Your task to perform on an android device: Open the stopwatch Image 0: 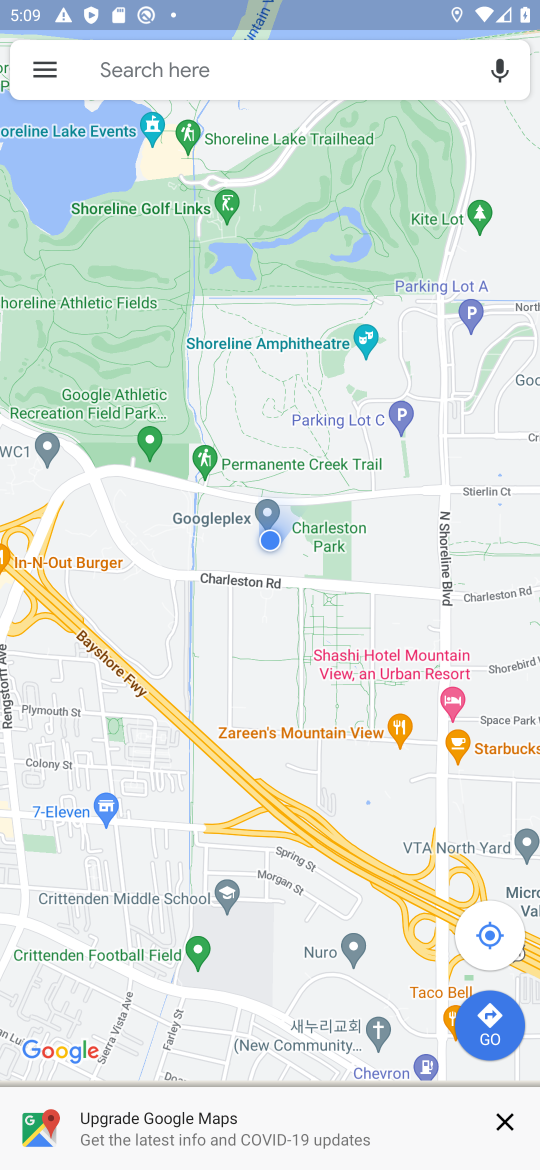
Step 0: press back button
Your task to perform on an android device: Open the stopwatch Image 1: 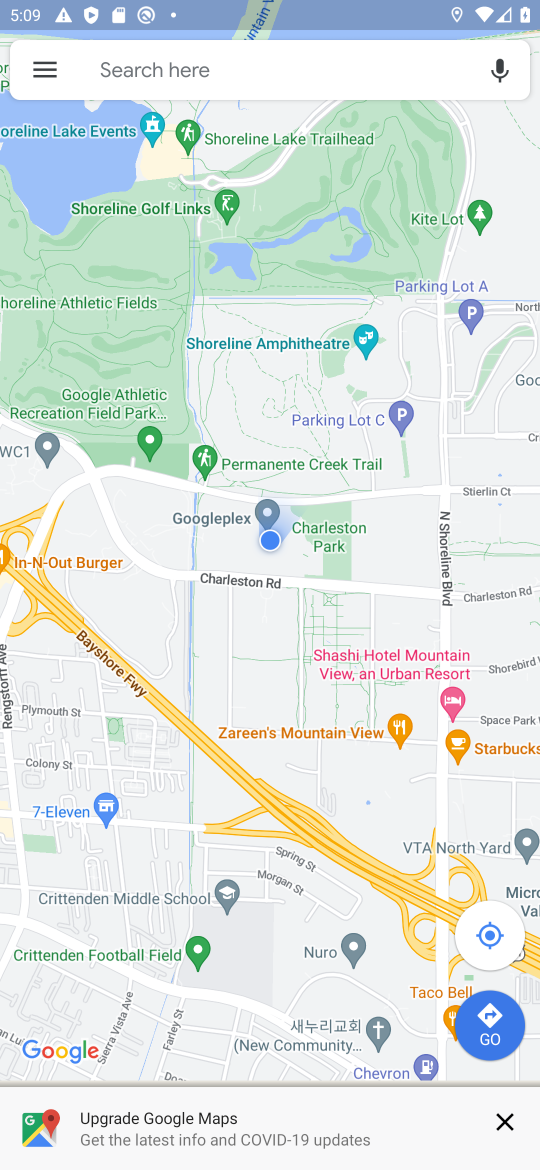
Step 1: press home button
Your task to perform on an android device: Open the stopwatch Image 2: 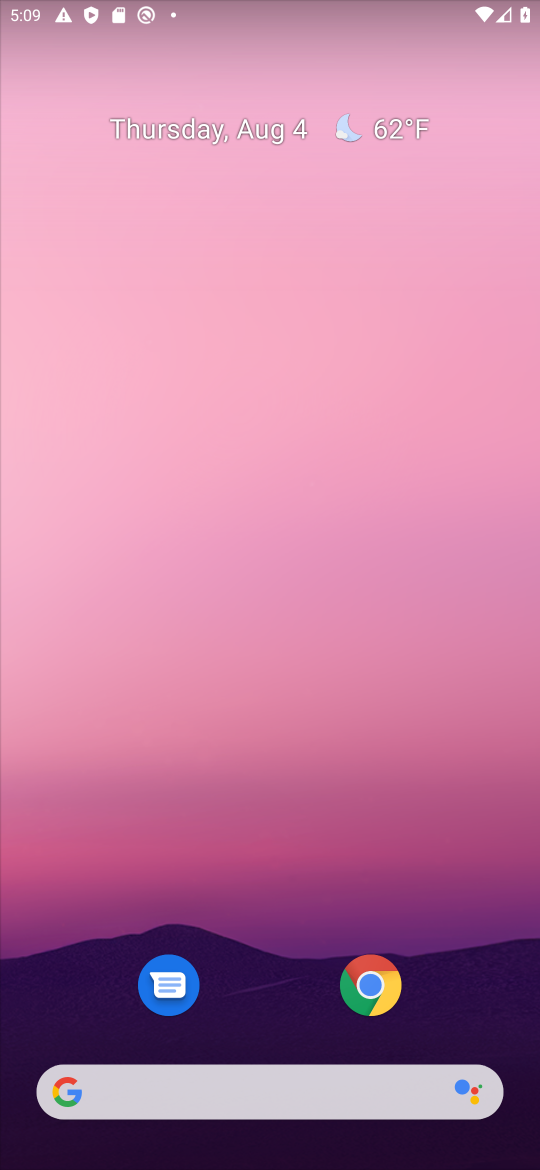
Step 2: drag from (241, 1099) to (281, 135)
Your task to perform on an android device: Open the stopwatch Image 3: 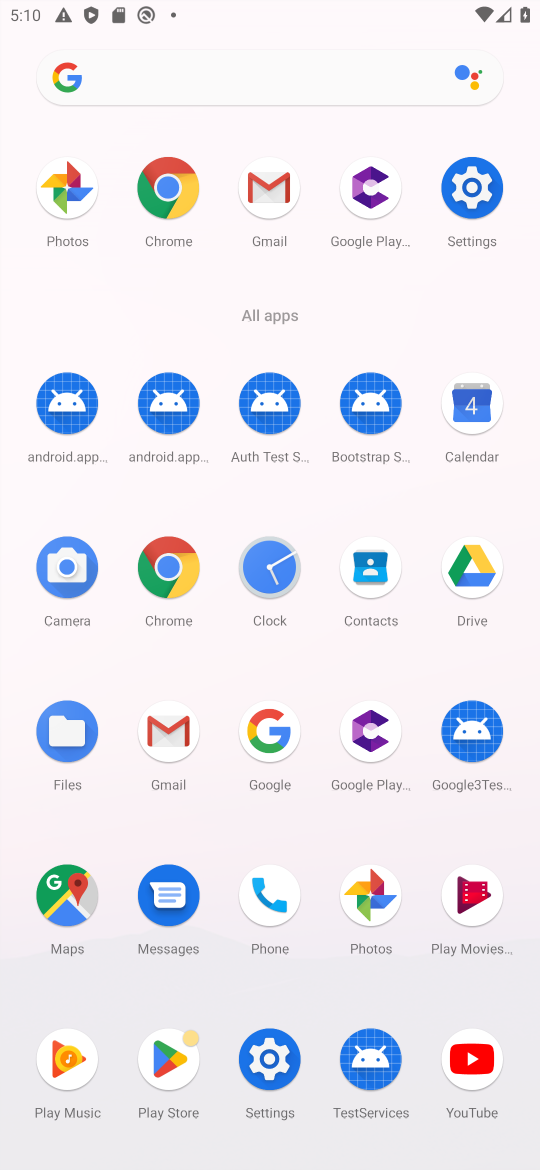
Step 3: click (278, 577)
Your task to perform on an android device: Open the stopwatch Image 4: 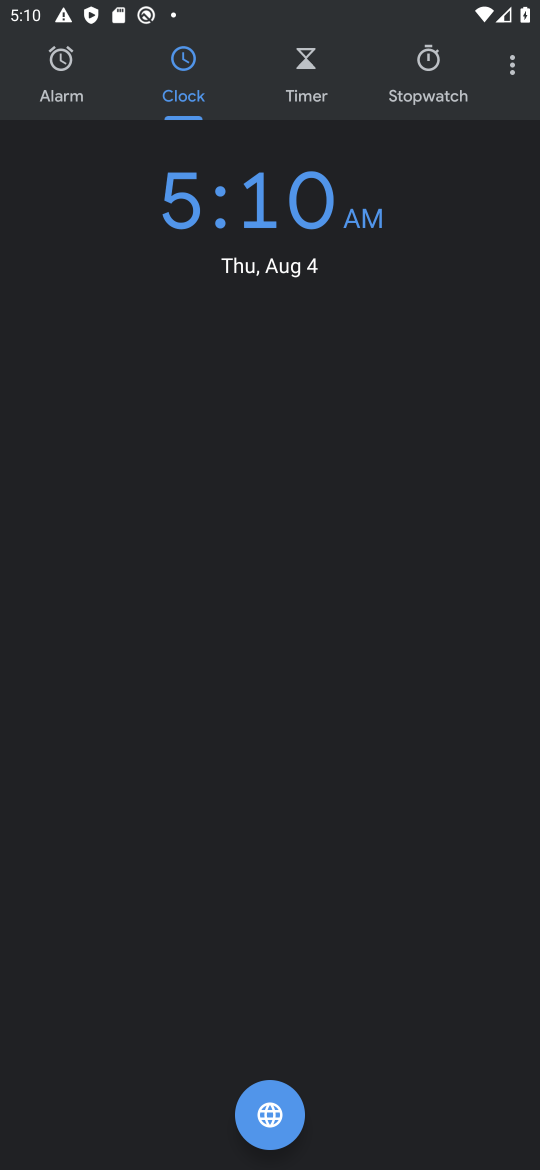
Step 4: click (410, 111)
Your task to perform on an android device: Open the stopwatch Image 5: 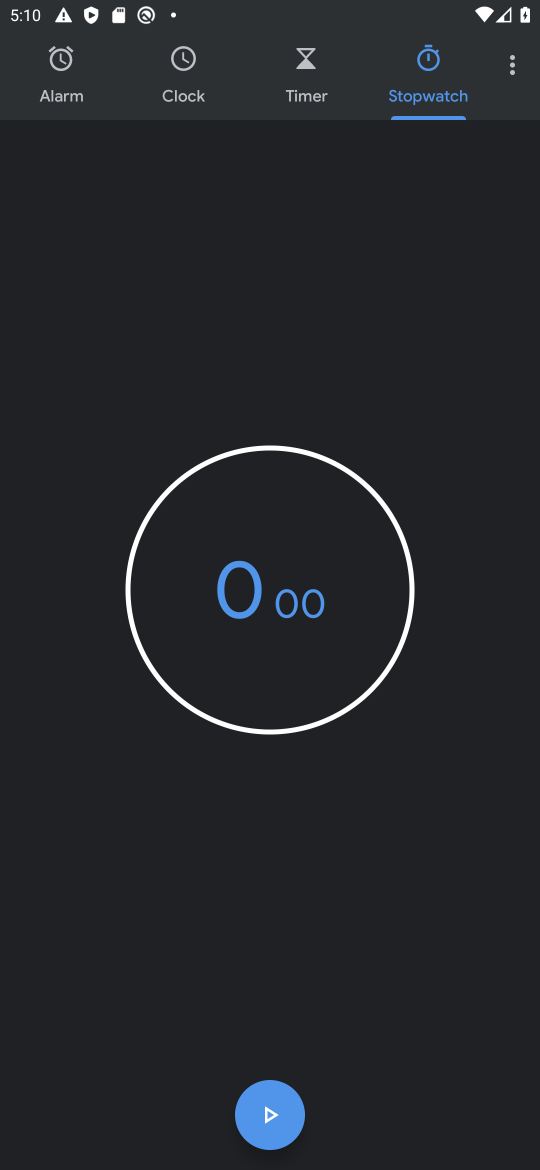
Step 5: task complete